Your task to perform on an android device: toggle javascript in the chrome app Image 0: 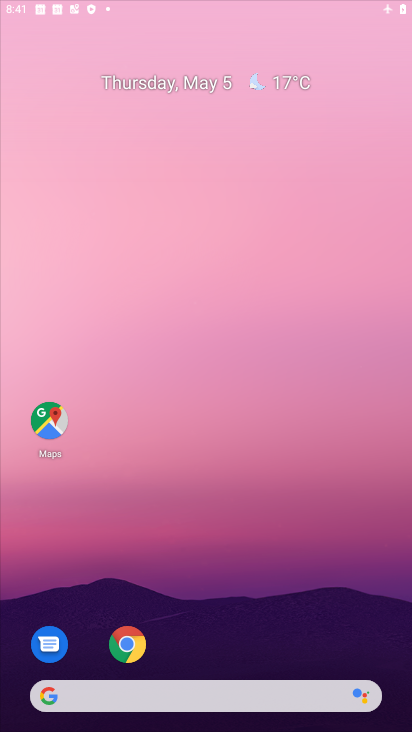
Step 0: click (193, 188)
Your task to perform on an android device: toggle javascript in the chrome app Image 1: 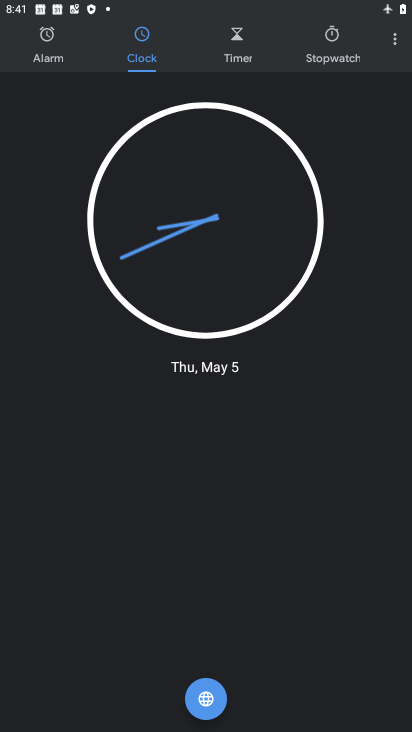
Step 1: drag from (275, 585) to (285, 162)
Your task to perform on an android device: toggle javascript in the chrome app Image 2: 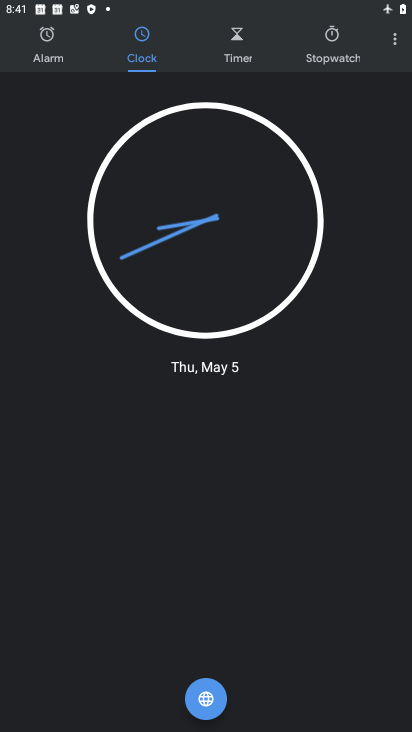
Step 2: press home button
Your task to perform on an android device: toggle javascript in the chrome app Image 3: 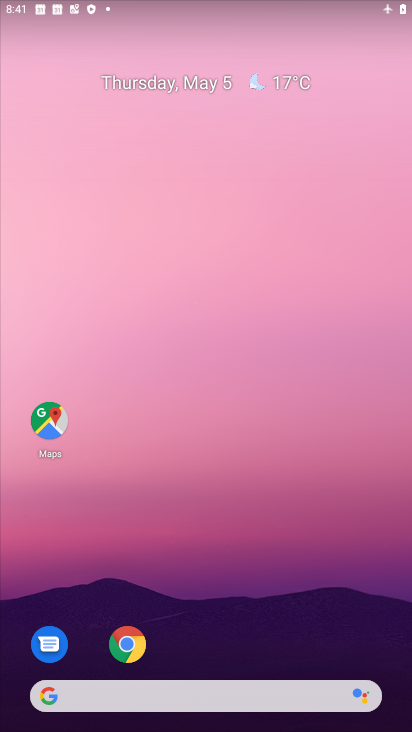
Step 3: click (118, 639)
Your task to perform on an android device: toggle javascript in the chrome app Image 4: 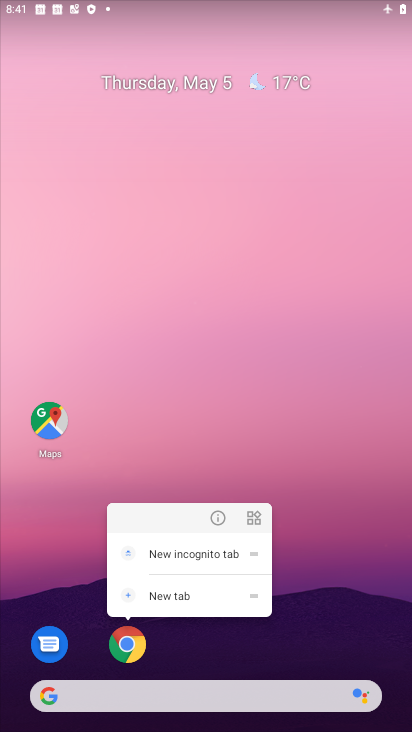
Step 4: click (215, 519)
Your task to perform on an android device: toggle javascript in the chrome app Image 5: 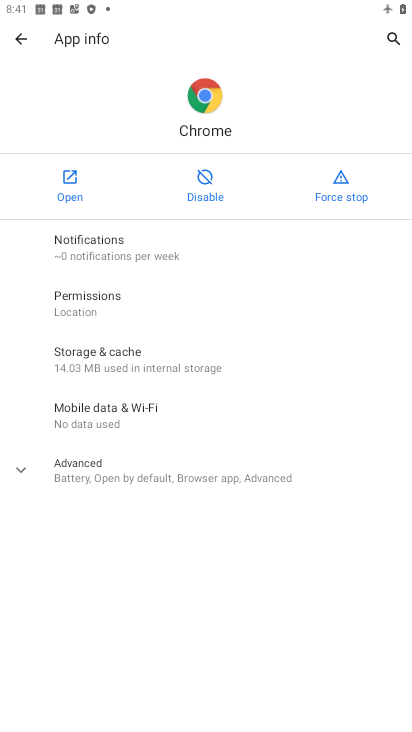
Step 5: click (67, 181)
Your task to perform on an android device: toggle javascript in the chrome app Image 6: 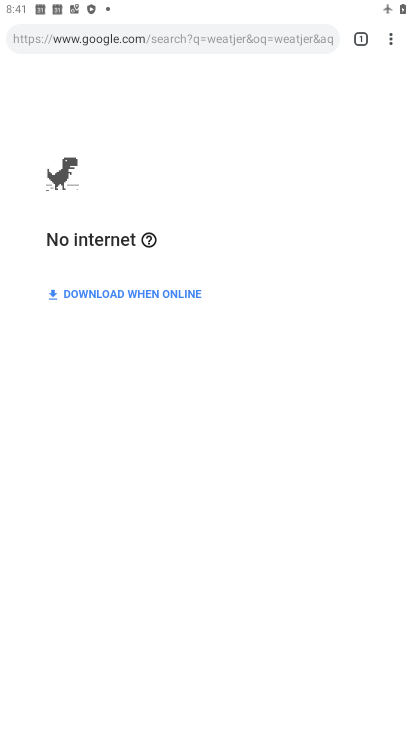
Step 6: click (390, 37)
Your task to perform on an android device: toggle javascript in the chrome app Image 7: 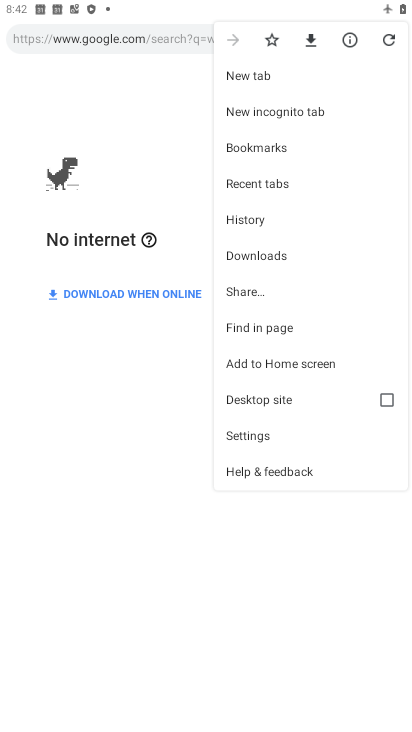
Step 7: click (266, 433)
Your task to perform on an android device: toggle javascript in the chrome app Image 8: 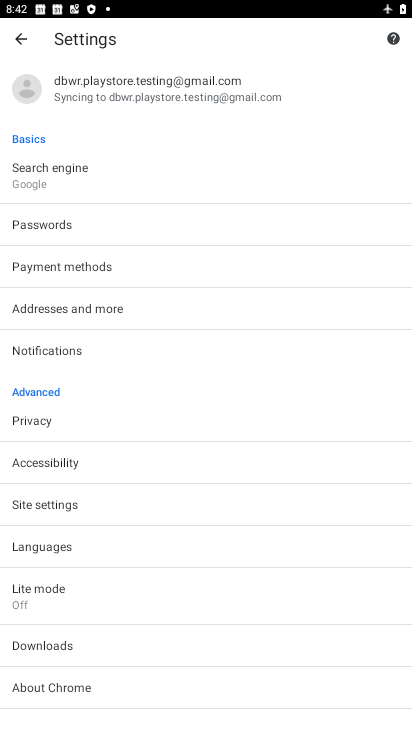
Step 8: click (83, 504)
Your task to perform on an android device: toggle javascript in the chrome app Image 9: 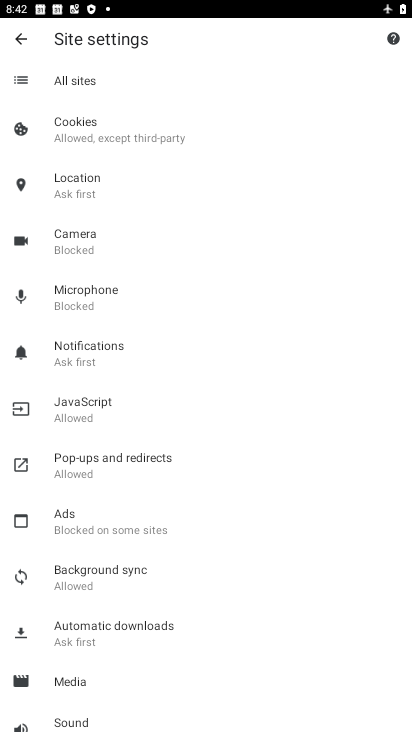
Step 9: click (89, 414)
Your task to perform on an android device: toggle javascript in the chrome app Image 10: 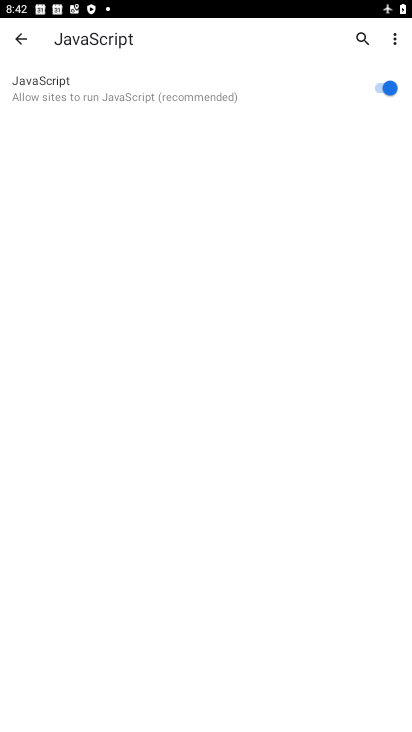
Step 10: drag from (204, 366) to (239, 50)
Your task to perform on an android device: toggle javascript in the chrome app Image 11: 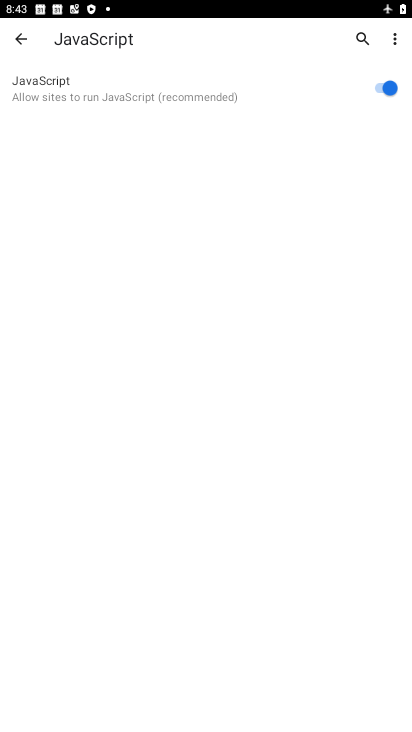
Step 11: click (370, 85)
Your task to perform on an android device: toggle javascript in the chrome app Image 12: 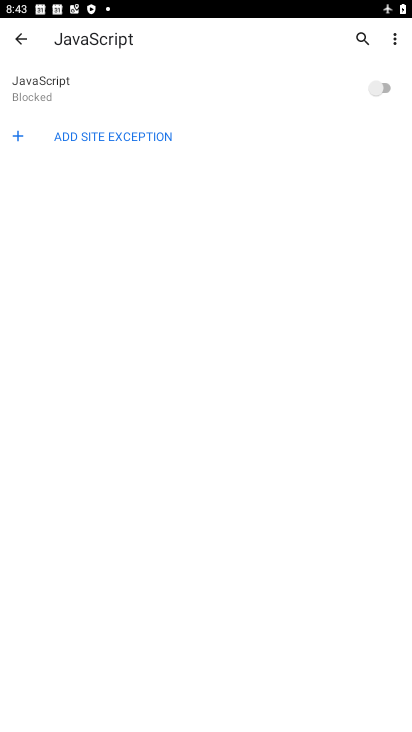
Step 12: task complete